Your task to perform on an android device: change timer sound Image 0: 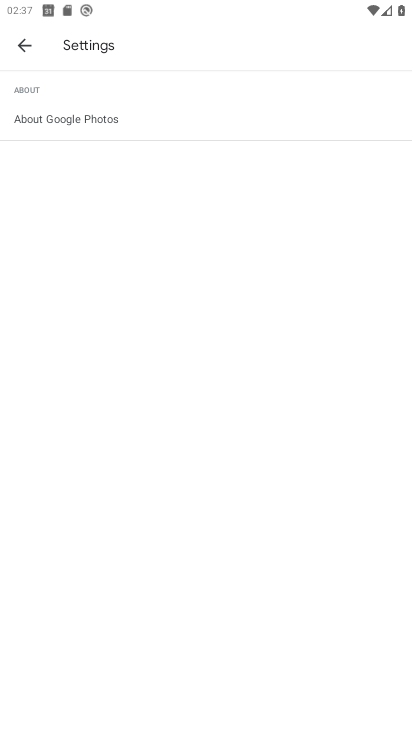
Step 0: press home button
Your task to perform on an android device: change timer sound Image 1: 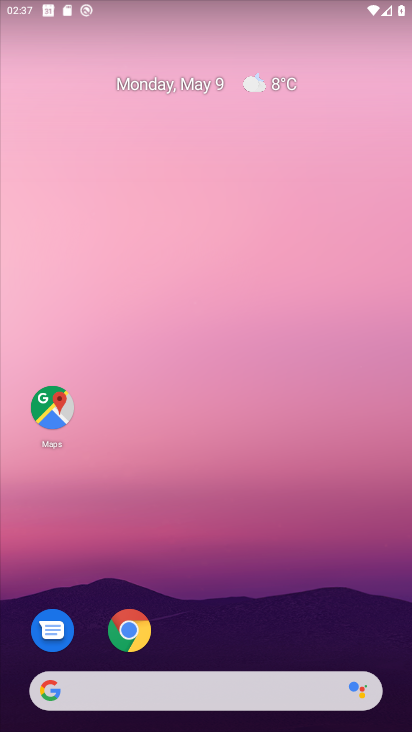
Step 1: drag from (220, 600) to (335, 67)
Your task to perform on an android device: change timer sound Image 2: 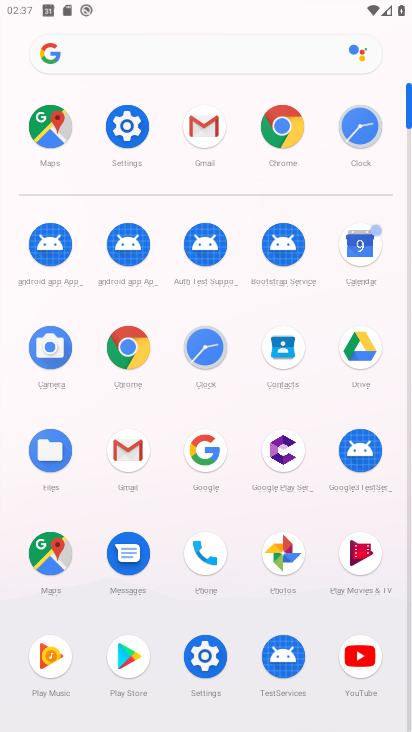
Step 2: click (198, 353)
Your task to perform on an android device: change timer sound Image 3: 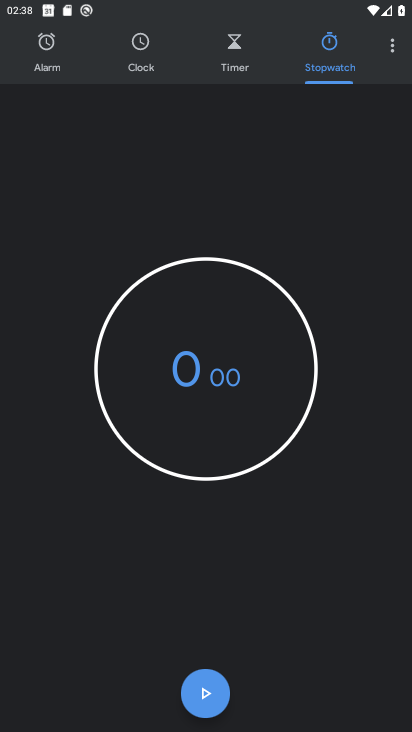
Step 3: click (385, 49)
Your task to perform on an android device: change timer sound Image 4: 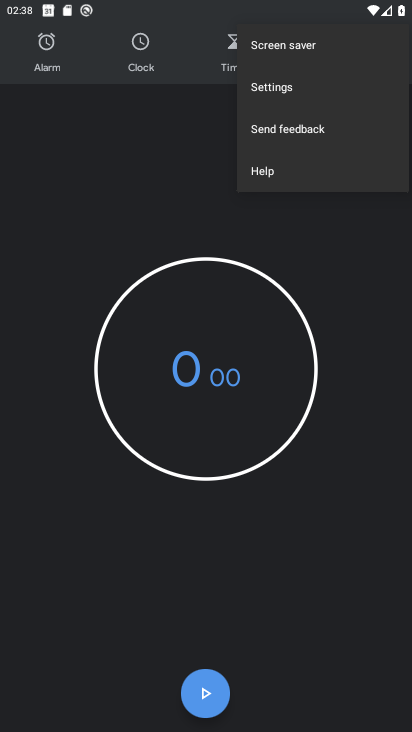
Step 4: click (284, 87)
Your task to perform on an android device: change timer sound Image 5: 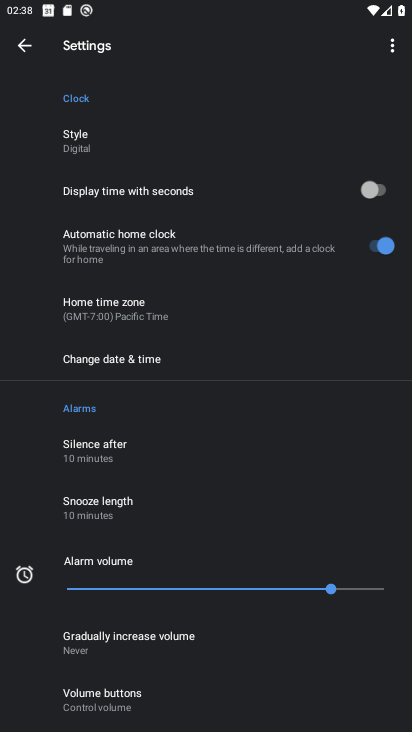
Step 5: drag from (161, 511) to (186, 321)
Your task to perform on an android device: change timer sound Image 6: 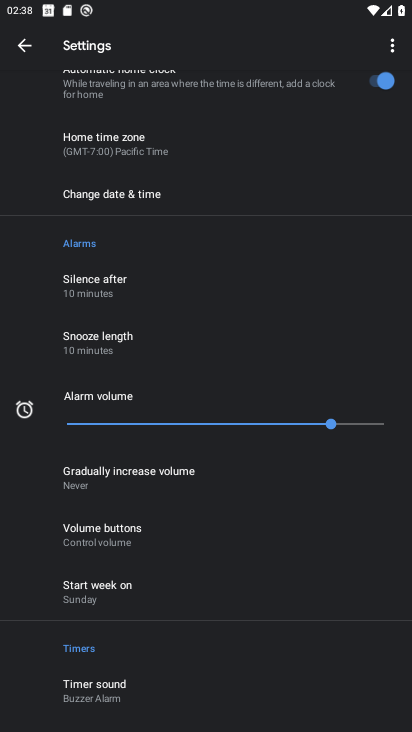
Step 6: drag from (195, 521) to (257, 243)
Your task to perform on an android device: change timer sound Image 7: 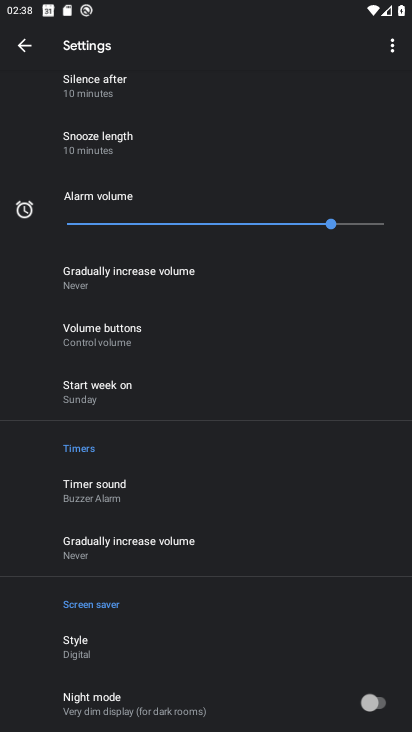
Step 7: click (136, 483)
Your task to perform on an android device: change timer sound Image 8: 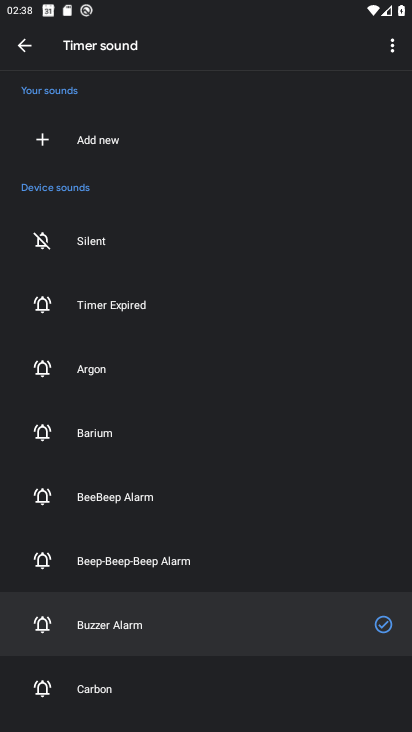
Step 8: click (98, 374)
Your task to perform on an android device: change timer sound Image 9: 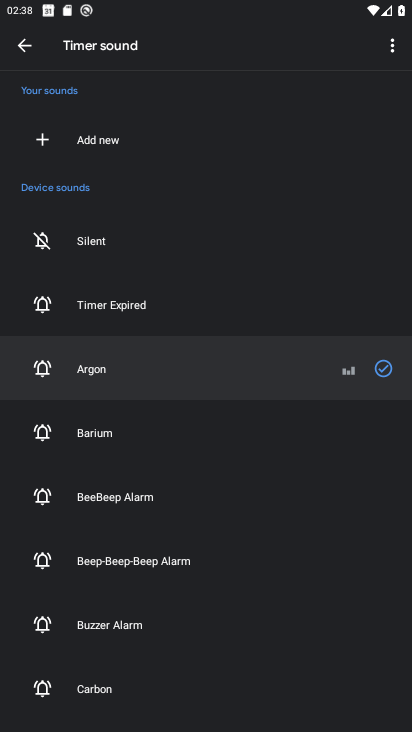
Step 9: task complete